Your task to perform on an android device: What is the recent news? Image 0: 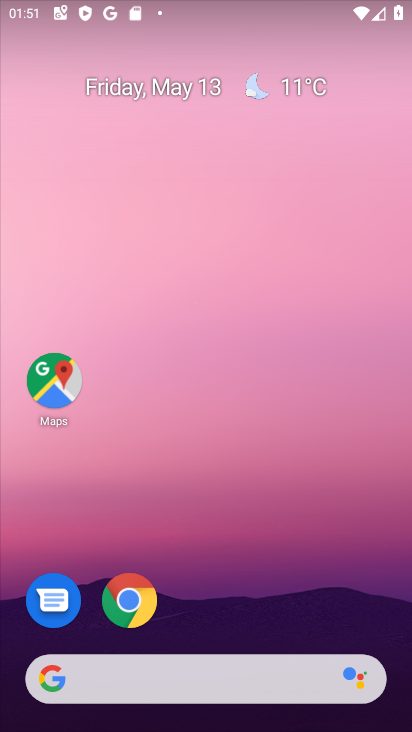
Step 0: click (393, 308)
Your task to perform on an android device: What is the recent news? Image 1: 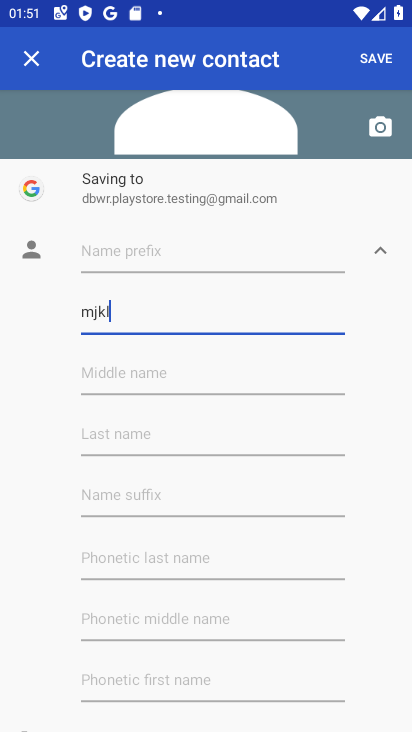
Step 1: press home button
Your task to perform on an android device: What is the recent news? Image 2: 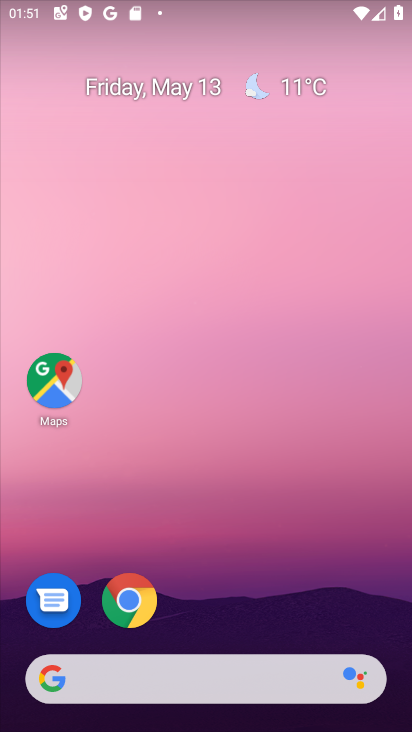
Step 2: drag from (204, 634) to (311, 172)
Your task to perform on an android device: What is the recent news? Image 3: 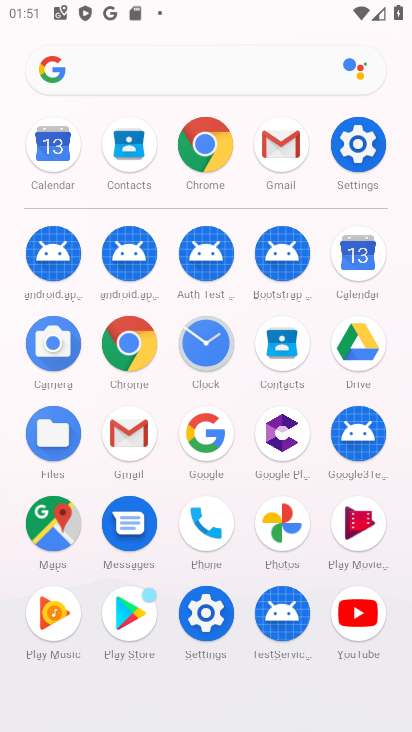
Step 3: click (196, 69)
Your task to perform on an android device: What is the recent news? Image 4: 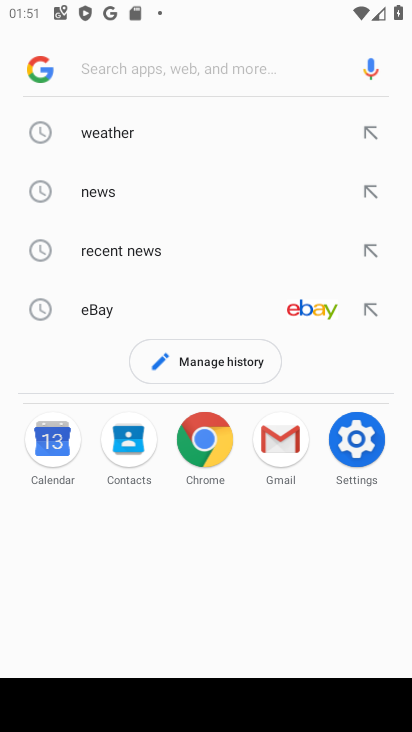
Step 4: click (148, 258)
Your task to perform on an android device: What is the recent news? Image 5: 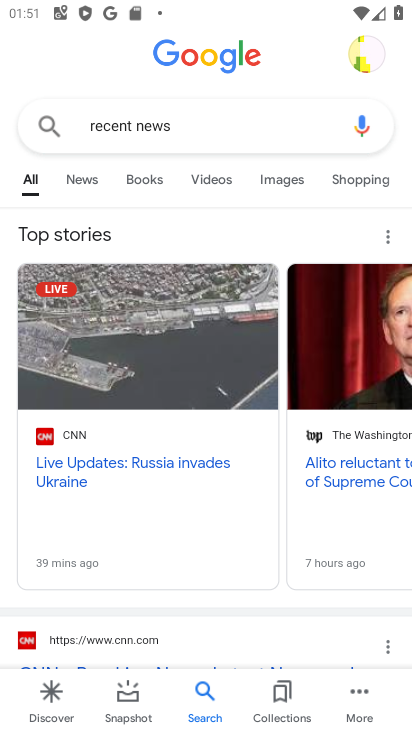
Step 5: task complete